Your task to perform on an android device: Go to settings Image 0: 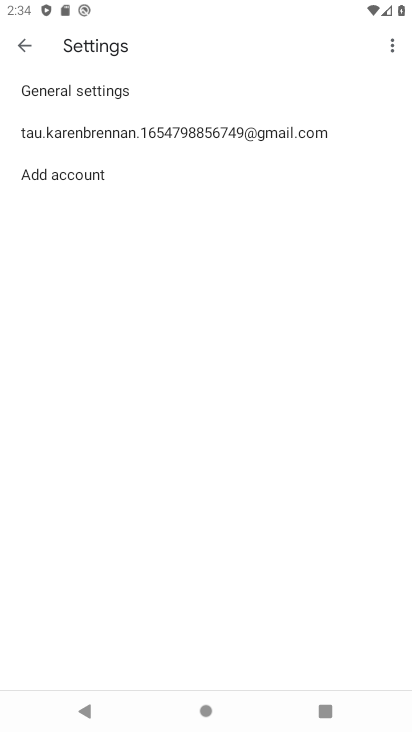
Step 0: click (88, 69)
Your task to perform on an android device: Go to settings Image 1: 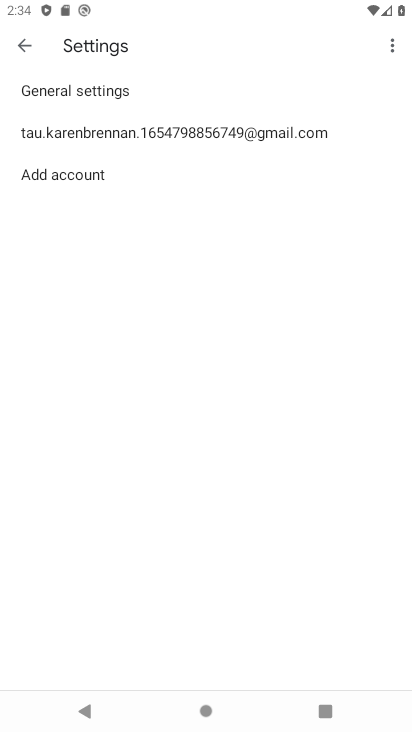
Step 1: click (88, 69)
Your task to perform on an android device: Go to settings Image 2: 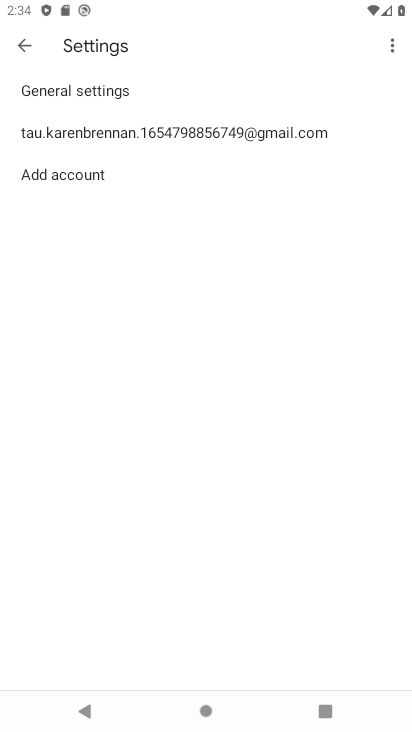
Step 2: task complete